Your task to perform on an android device: turn on translation in the chrome app Image 0: 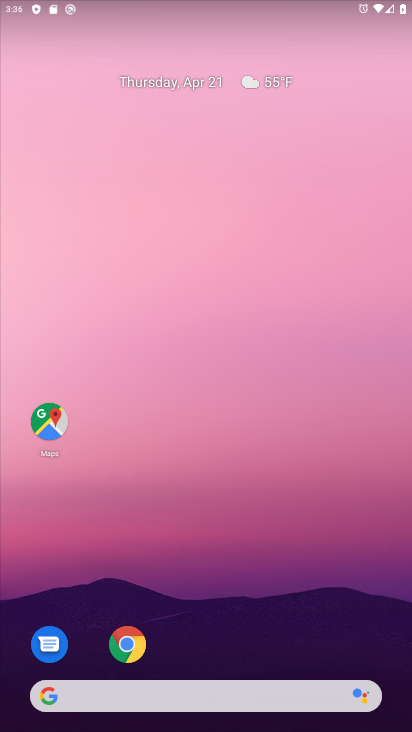
Step 0: click (138, 650)
Your task to perform on an android device: turn on translation in the chrome app Image 1: 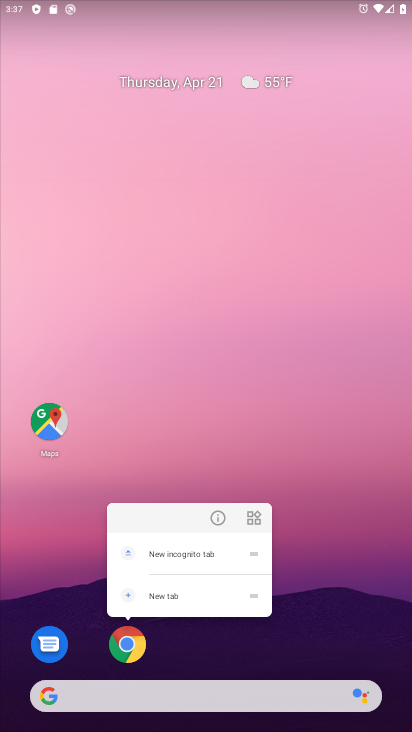
Step 1: click (137, 648)
Your task to perform on an android device: turn on translation in the chrome app Image 2: 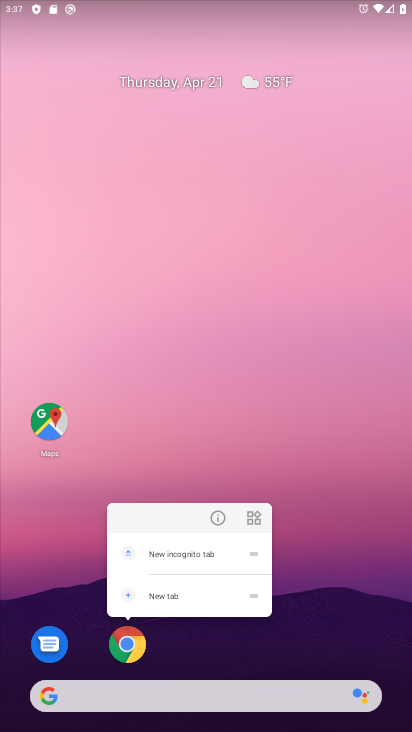
Step 2: click (136, 648)
Your task to perform on an android device: turn on translation in the chrome app Image 3: 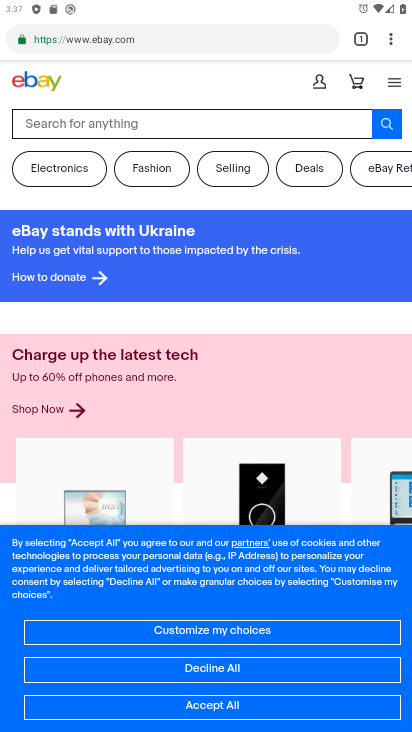
Step 3: click (394, 38)
Your task to perform on an android device: turn on translation in the chrome app Image 4: 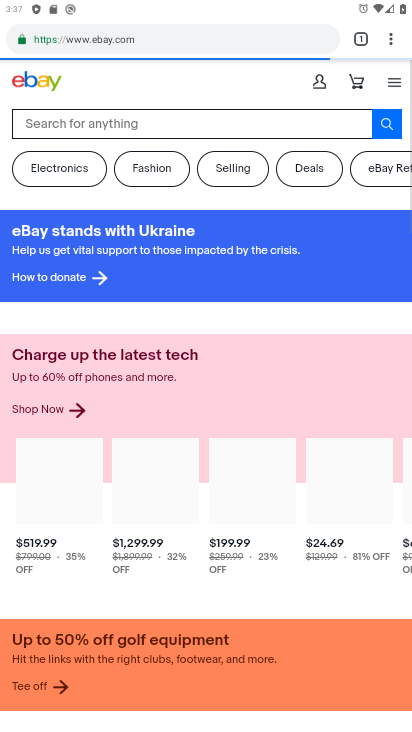
Step 4: drag from (385, 47) to (254, 505)
Your task to perform on an android device: turn on translation in the chrome app Image 5: 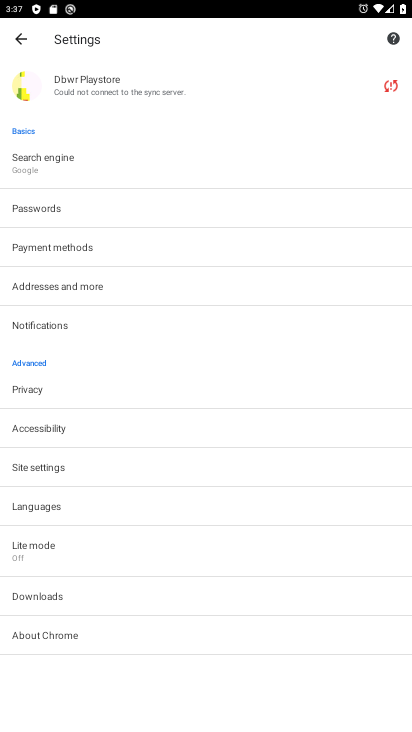
Step 5: click (46, 462)
Your task to perform on an android device: turn on translation in the chrome app Image 6: 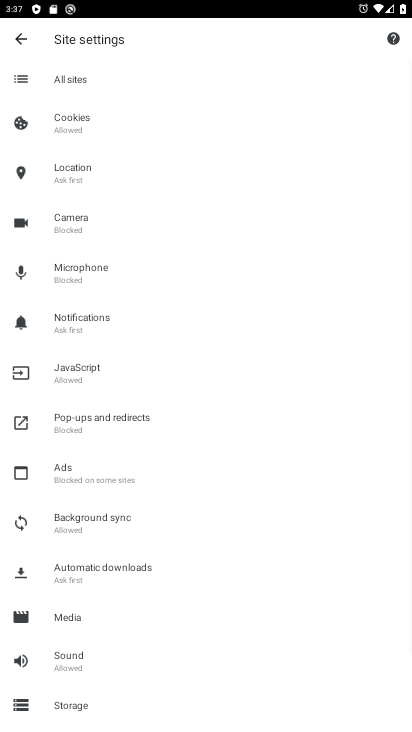
Step 6: click (10, 22)
Your task to perform on an android device: turn on translation in the chrome app Image 7: 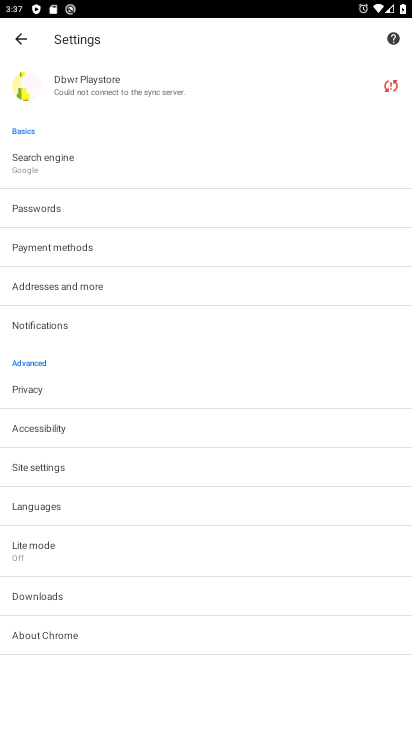
Step 7: click (49, 506)
Your task to perform on an android device: turn on translation in the chrome app Image 8: 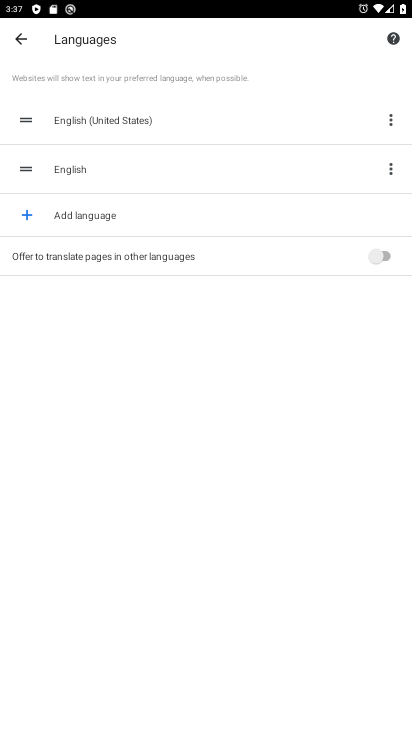
Step 8: click (371, 249)
Your task to perform on an android device: turn on translation in the chrome app Image 9: 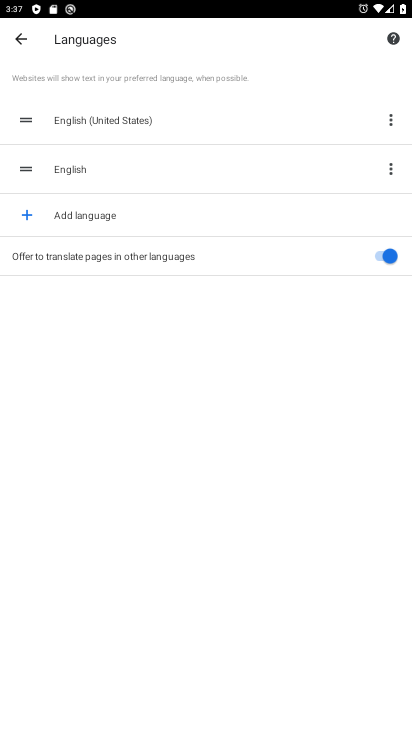
Step 9: task complete